Your task to perform on an android device: Open the stopwatch Image 0: 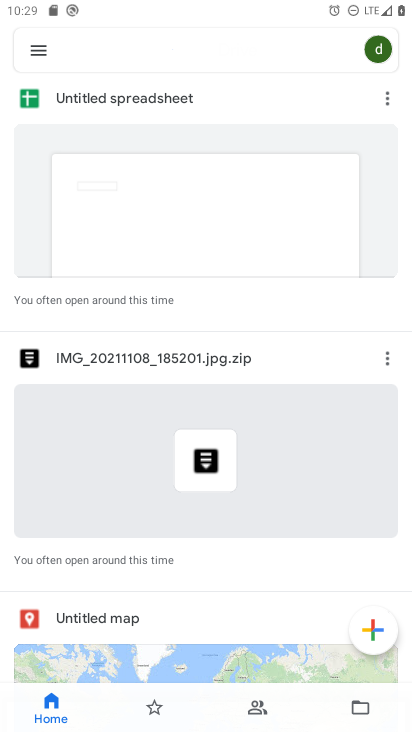
Step 0: press home button
Your task to perform on an android device: Open the stopwatch Image 1: 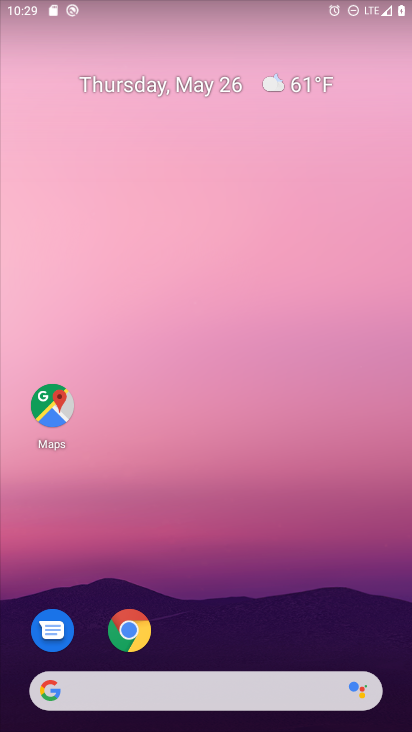
Step 1: drag from (225, 651) to (124, 26)
Your task to perform on an android device: Open the stopwatch Image 2: 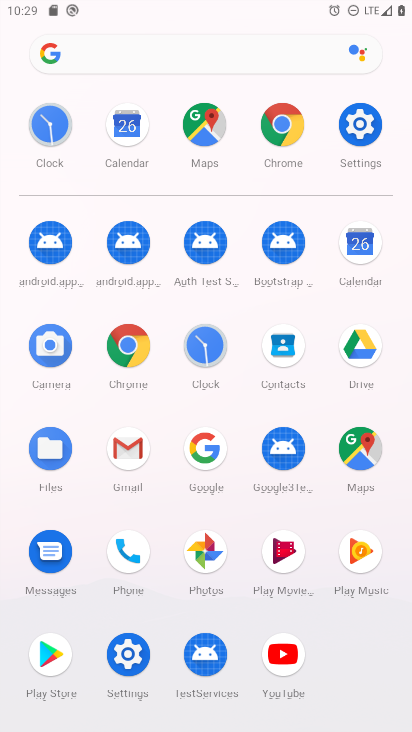
Step 2: click (208, 334)
Your task to perform on an android device: Open the stopwatch Image 3: 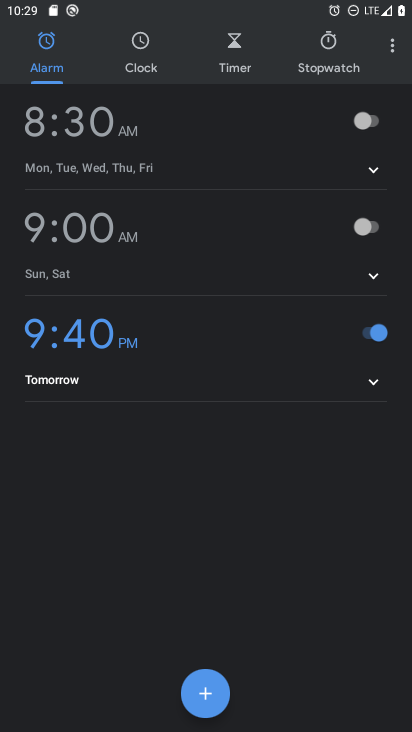
Step 3: click (325, 25)
Your task to perform on an android device: Open the stopwatch Image 4: 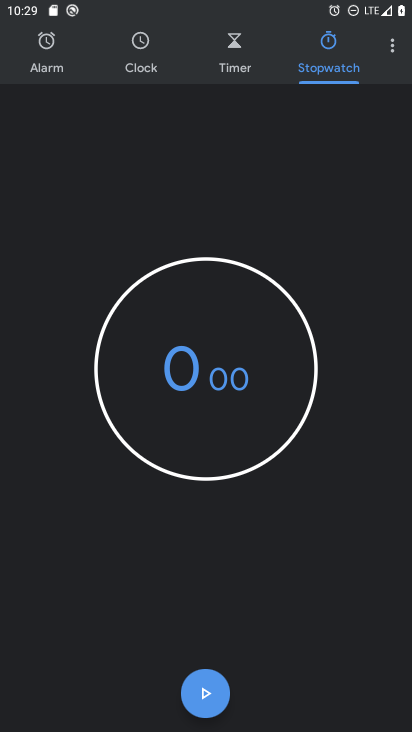
Step 4: task complete